Your task to perform on an android device: Open Youtube and go to the subscriptions tab Image 0: 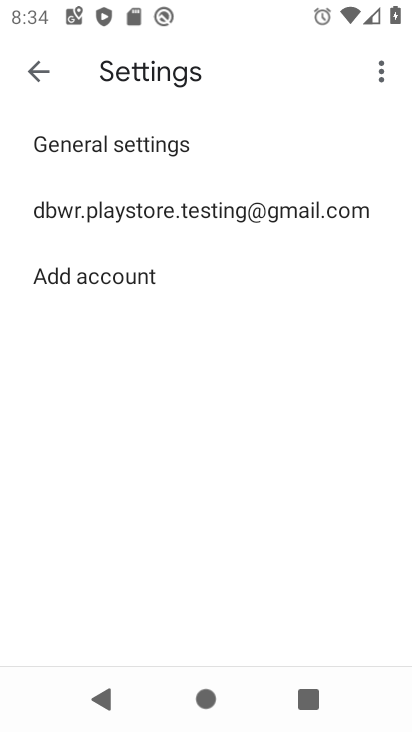
Step 0: press home button
Your task to perform on an android device: Open Youtube and go to the subscriptions tab Image 1: 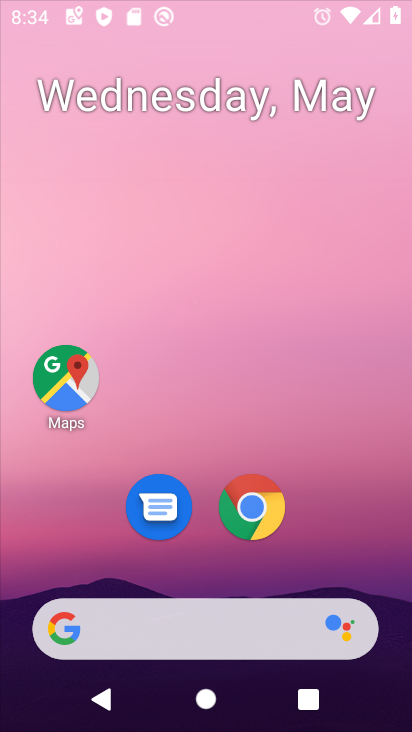
Step 1: drag from (243, 596) to (304, 210)
Your task to perform on an android device: Open Youtube and go to the subscriptions tab Image 2: 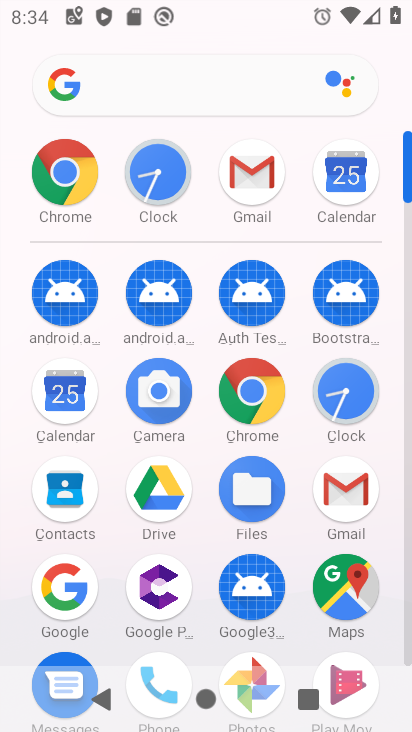
Step 2: drag from (279, 616) to (311, 259)
Your task to perform on an android device: Open Youtube and go to the subscriptions tab Image 3: 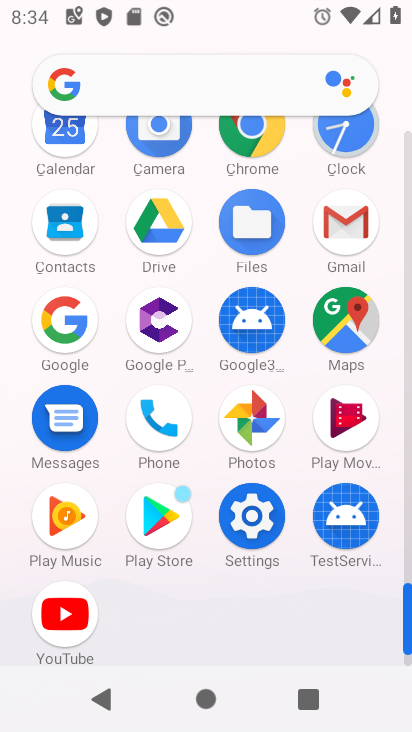
Step 3: click (62, 613)
Your task to perform on an android device: Open Youtube and go to the subscriptions tab Image 4: 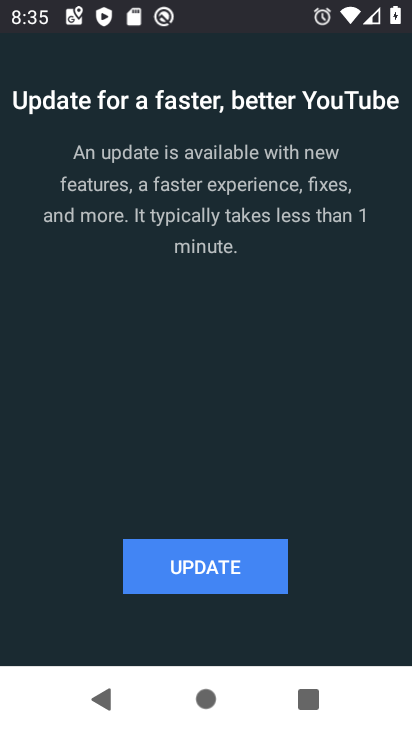
Step 4: task complete